Your task to perform on an android device: open a bookmark in the chrome app Image 0: 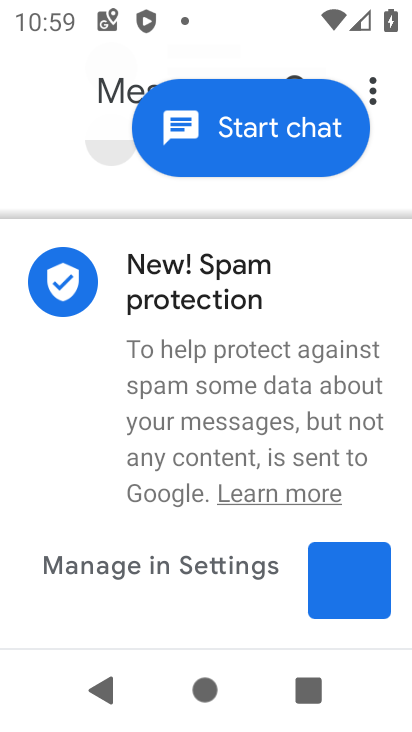
Step 0: press home button
Your task to perform on an android device: open a bookmark in the chrome app Image 1: 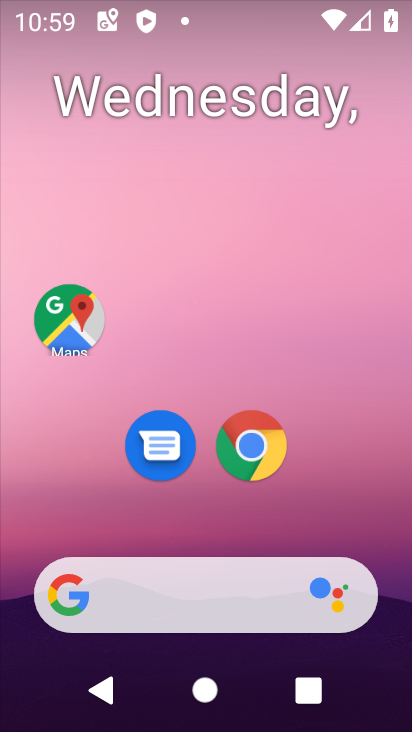
Step 1: click (268, 445)
Your task to perform on an android device: open a bookmark in the chrome app Image 2: 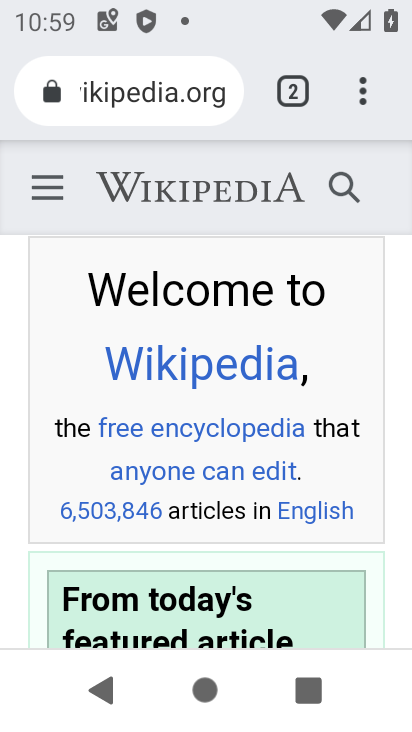
Step 2: task complete